Your task to perform on an android device: turn on sleep mode Image 0: 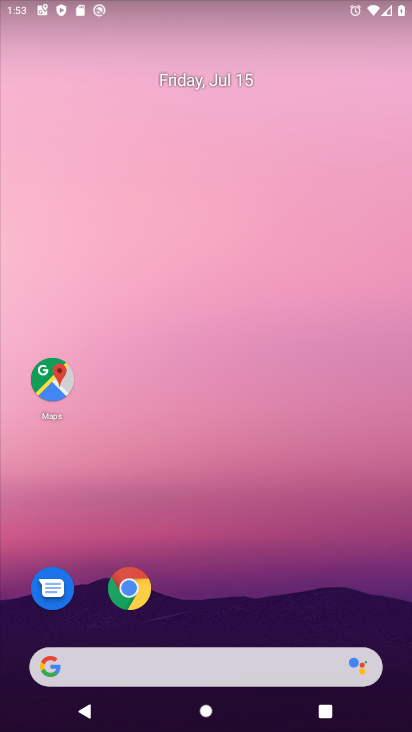
Step 0: drag from (169, 667) to (200, 196)
Your task to perform on an android device: turn on sleep mode Image 1: 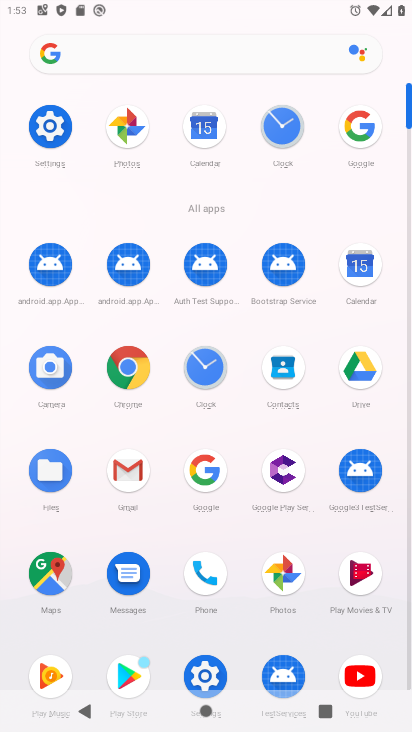
Step 1: click (49, 125)
Your task to perform on an android device: turn on sleep mode Image 2: 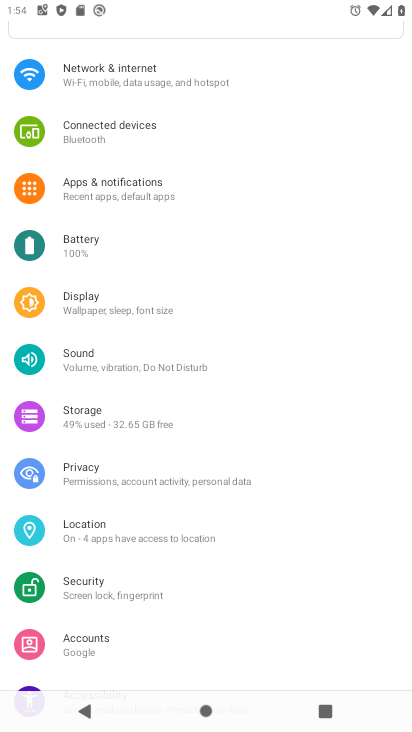
Step 2: click (140, 368)
Your task to perform on an android device: turn on sleep mode Image 3: 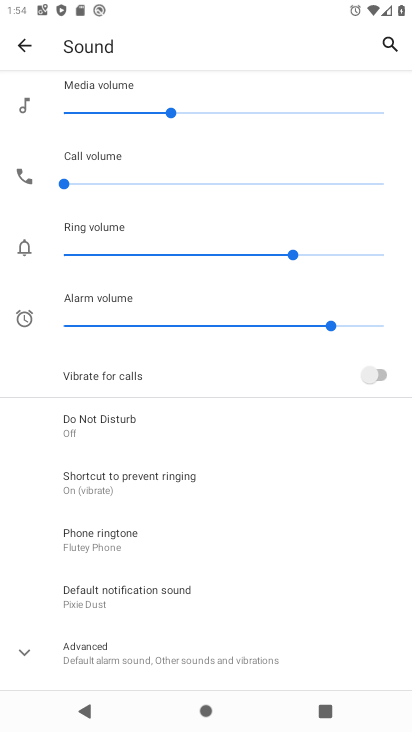
Step 3: drag from (167, 504) to (185, 413)
Your task to perform on an android device: turn on sleep mode Image 4: 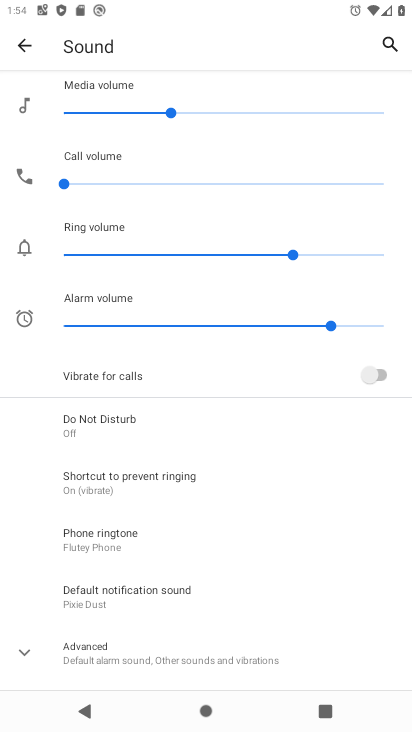
Step 4: press back button
Your task to perform on an android device: turn on sleep mode Image 5: 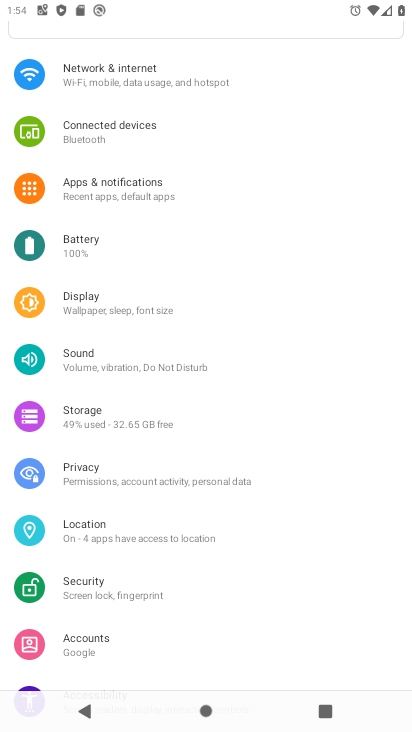
Step 5: click (172, 305)
Your task to perform on an android device: turn on sleep mode Image 6: 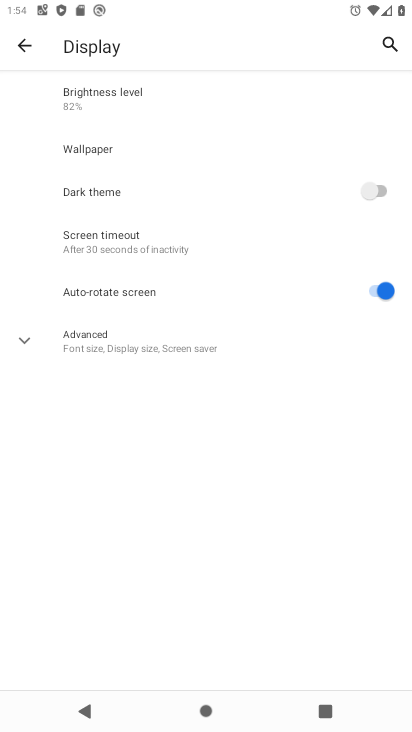
Step 6: click (149, 251)
Your task to perform on an android device: turn on sleep mode Image 7: 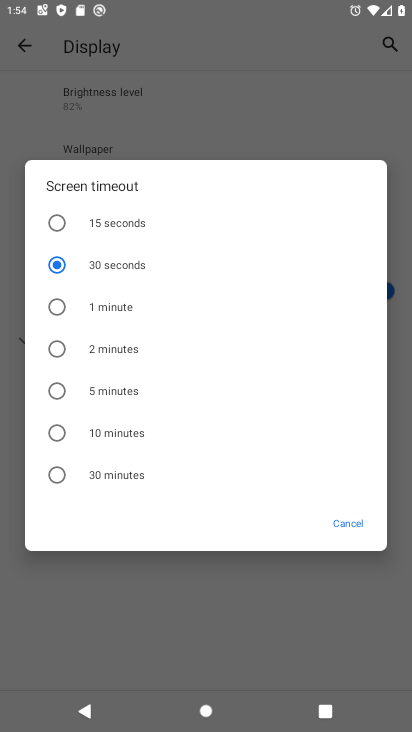
Step 7: drag from (144, 441) to (176, 313)
Your task to perform on an android device: turn on sleep mode Image 8: 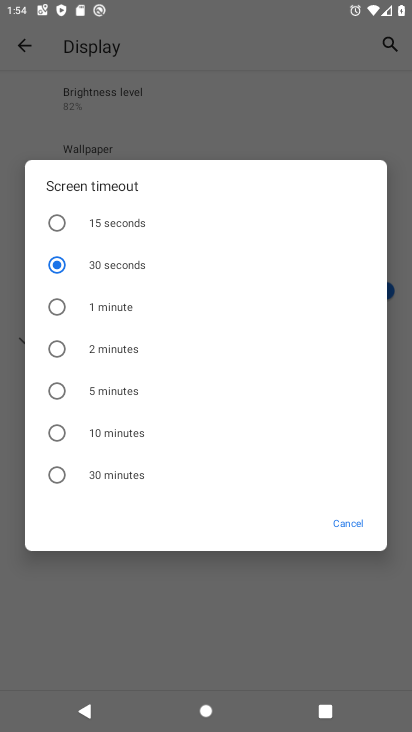
Step 8: click (347, 525)
Your task to perform on an android device: turn on sleep mode Image 9: 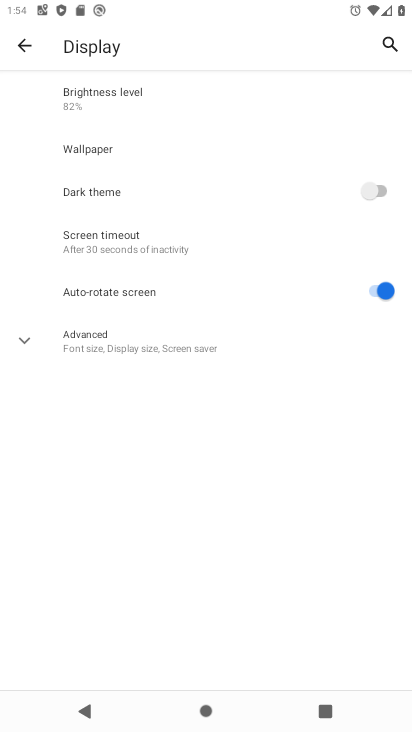
Step 9: task complete